Your task to perform on an android device: Go to settings Image 0: 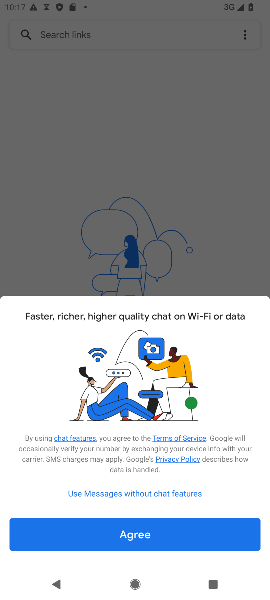
Step 0: press home button
Your task to perform on an android device: Go to settings Image 1: 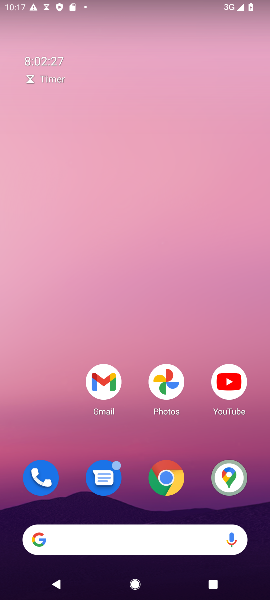
Step 1: drag from (203, 448) to (166, 136)
Your task to perform on an android device: Go to settings Image 2: 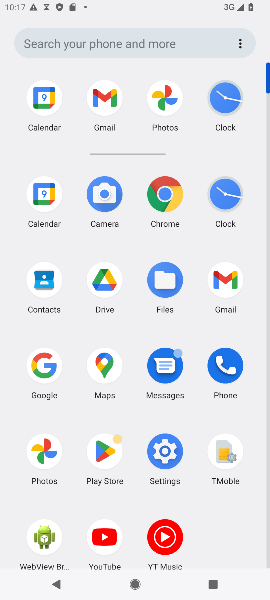
Step 2: click (164, 456)
Your task to perform on an android device: Go to settings Image 3: 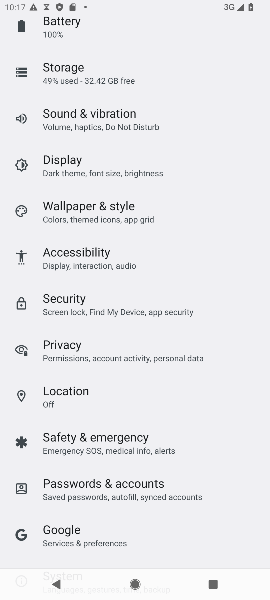
Step 3: task complete